Your task to perform on an android device: Open calendar and show me the first week of next month Image 0: 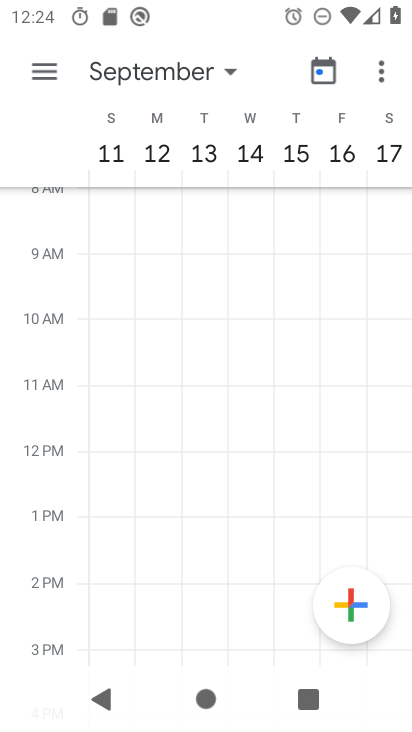
Step 0: press home button
Your task to perform on an android device: Open calendar and show me the first week of next month Image 1: 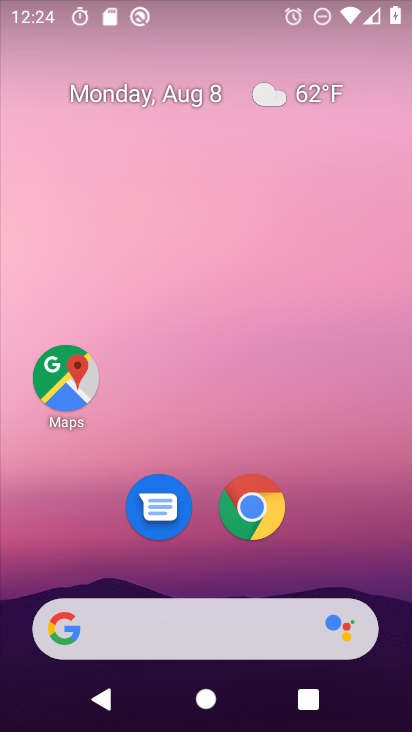
Step 1: drag from (352, 557) to (291, 8)
Your task to perform on an android device: Open calendar and show me the first week of next month Image 2: 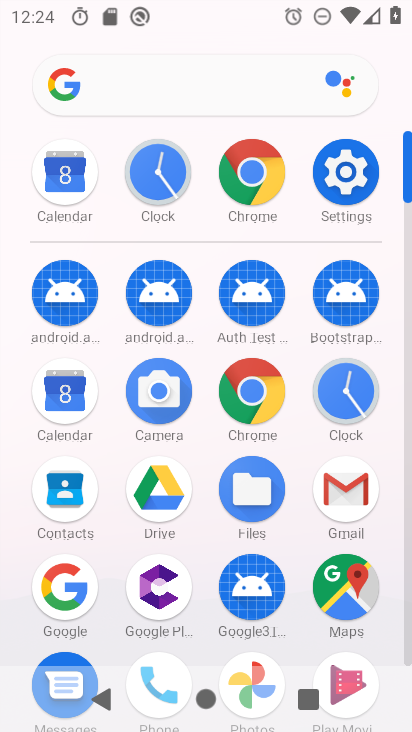
Step 2: click (74, 395)
Your task to perform on an android device: Open calendar and show me the first week of next month Image 3: 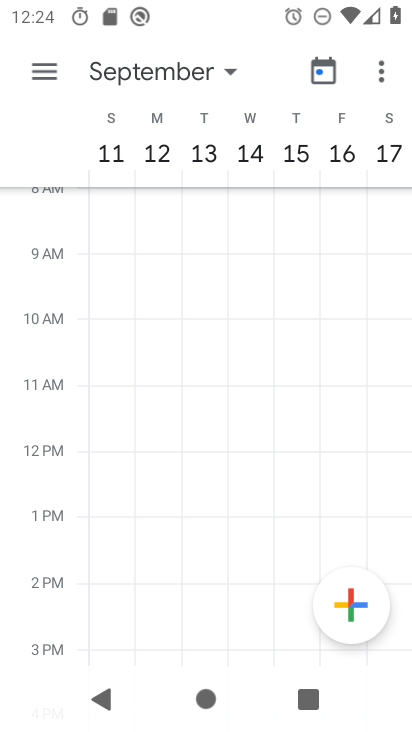
Step 3: click (202, 66)
Your task to perform on an android device: Open calendar and show me the first week of next month Image 4: 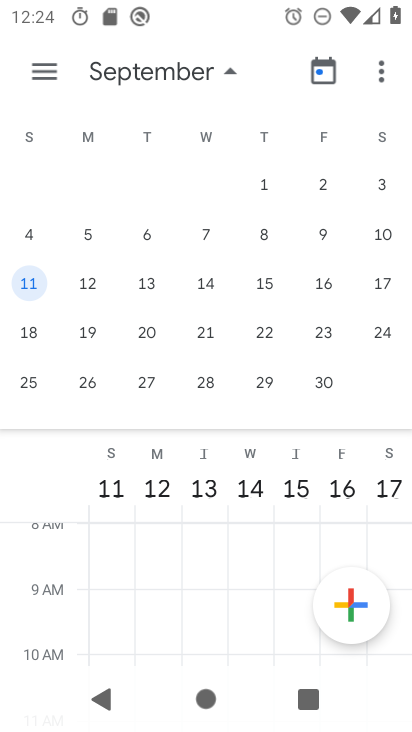
Step 4: click (158, 235)
Your task to perform on an android device: Open calendar and show me the first week of next month Image 5: 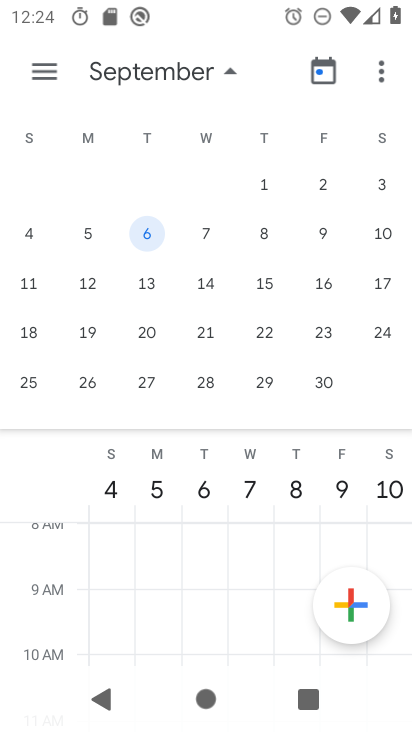
Step 5: task complete